Your task to perform on an android device: turn off location history Image 0: 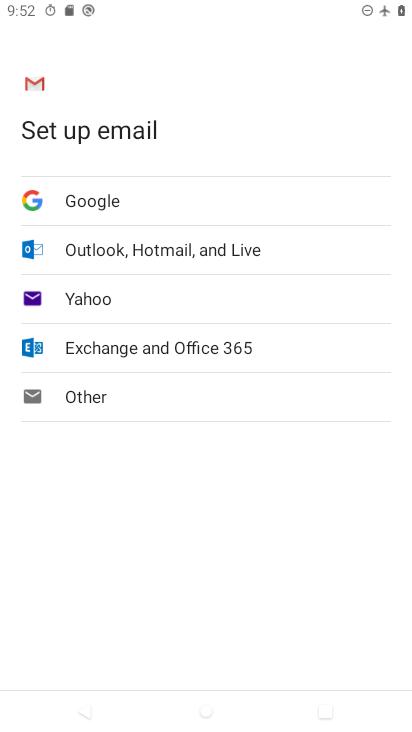
Step 0: press home button
Your task to perform on an android device: turn off location history Image 1: 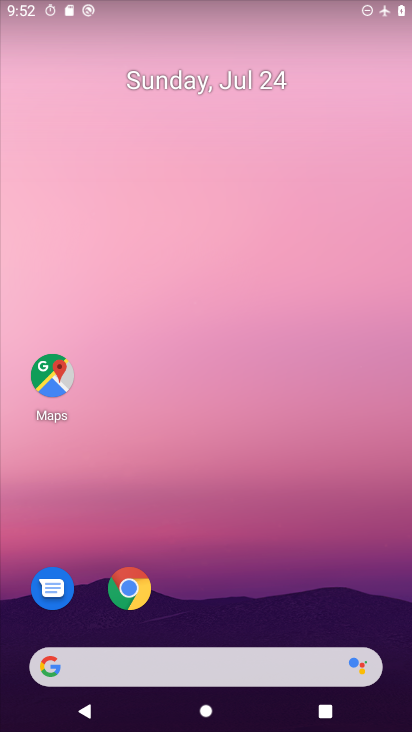
Step 1: click (52, 377)
Your task to perform on an android device: turn off location history Image 2: 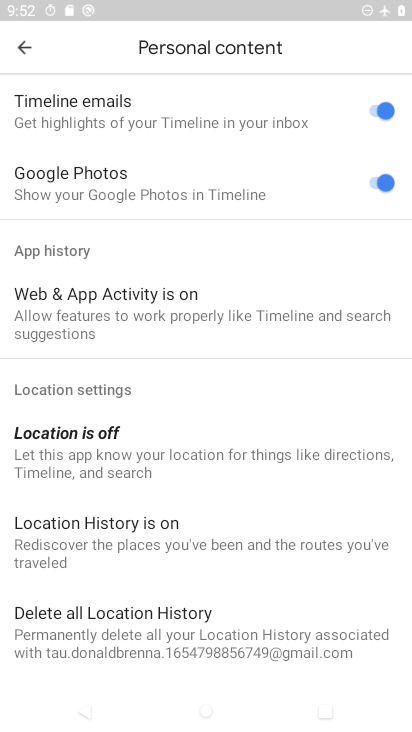
Step 2: click (51, 542)
Your task to perform on an android device: turn off location history Image 3: 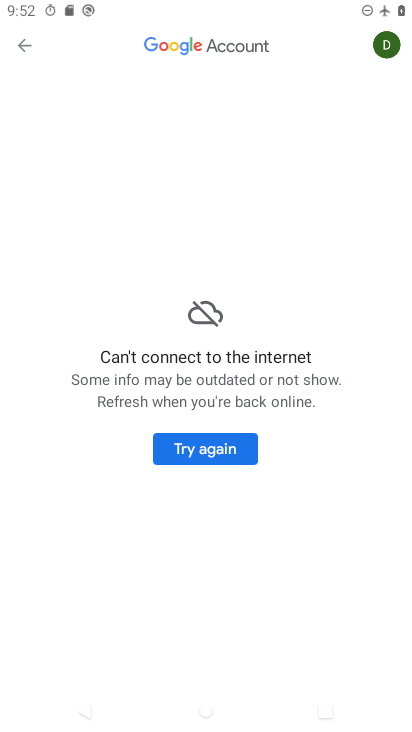
Step 3: task complete